Your task to perform on an android device: Do I have any events today? Image 0: 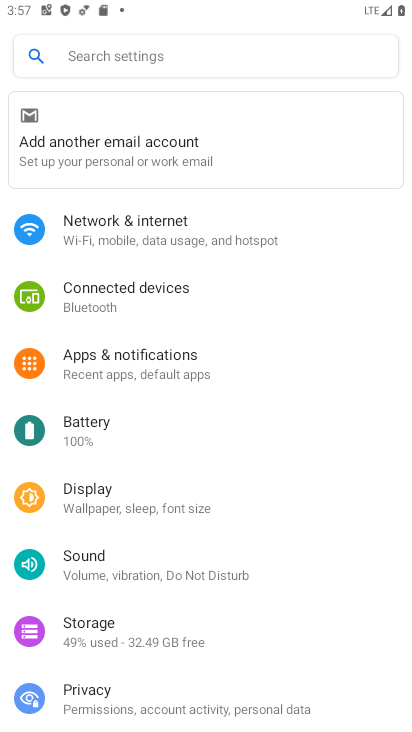
Step 0: press home button
Your task to perform on an android device: Do I have any events today? Image 1: 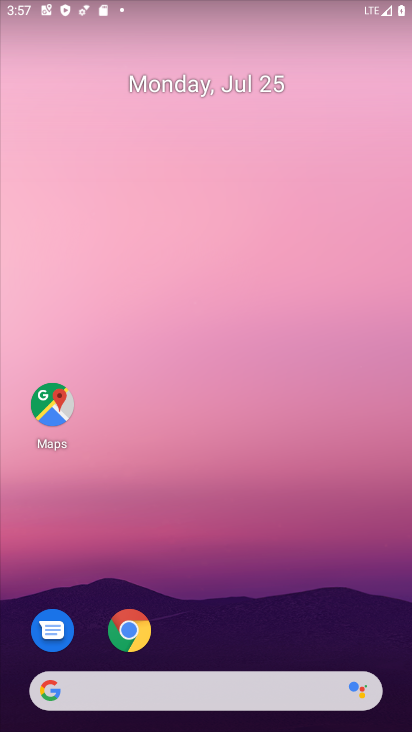
Step 1: drag from (208, 572) to (345, 15)
Your task to perform on an android device: Do I have any events today? Image 2: 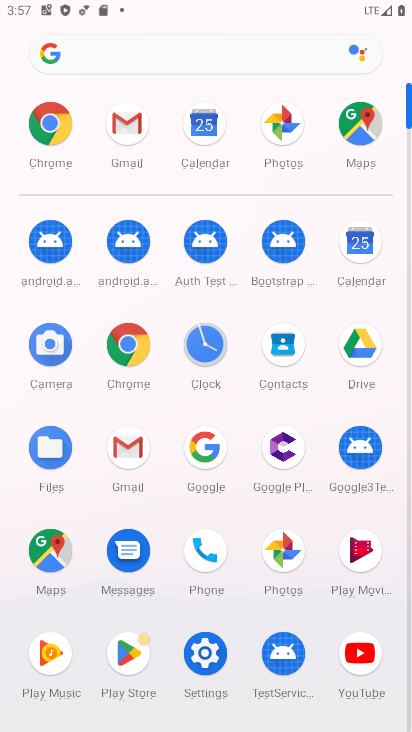
Step 2: click (357, 248)
Your task to perform on an android device: Do I have any events today? Image 3: 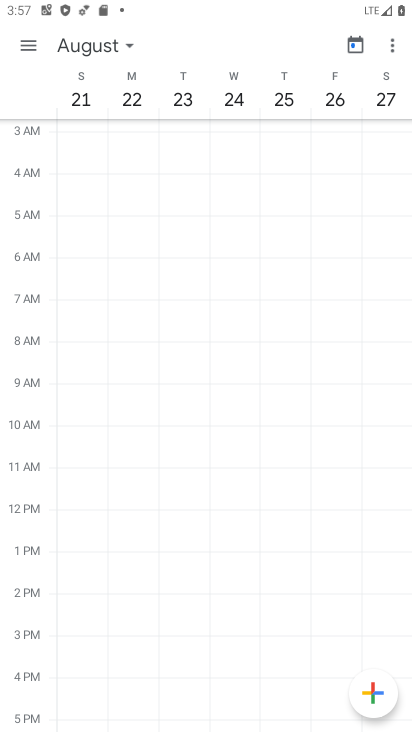
Step 3: click (88, 49)
Your task to perform on an android device: Do I have any events today? Image 4: 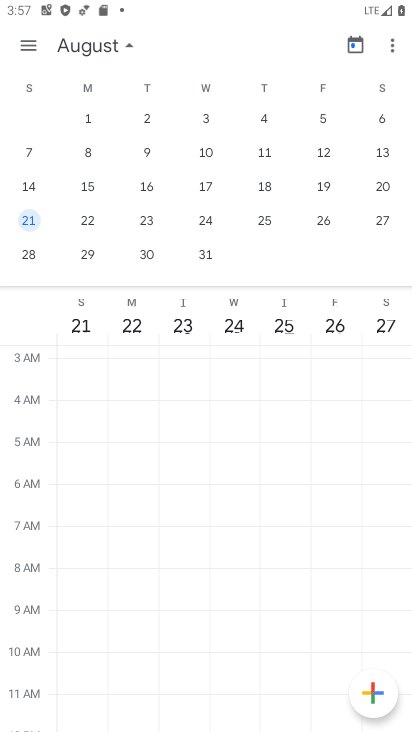
Step 4: drag from (107, 191) to (402, 245)
Your task to perform on an android device: Do I have any events today? Image 5: 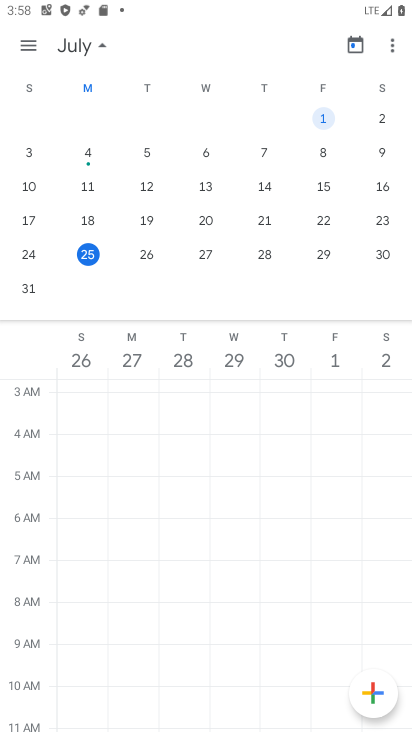
Step 5: click (93, 245)
Your task to perform on an android device: Do I have any events today? Image 6: 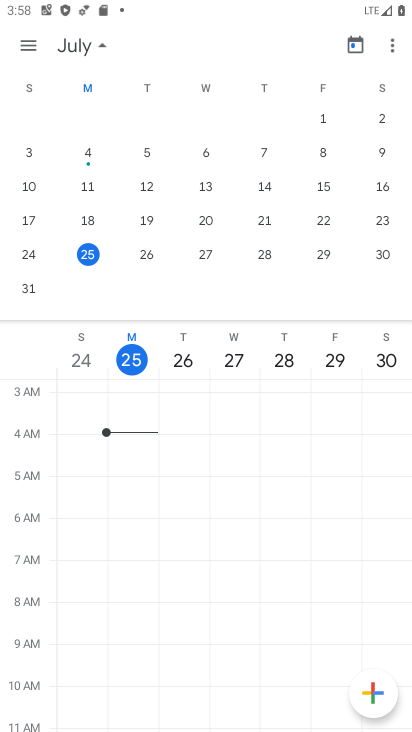
Step 6: click (33, 43)
Your task to perform on an android device: Do I have any events today? Image 7: 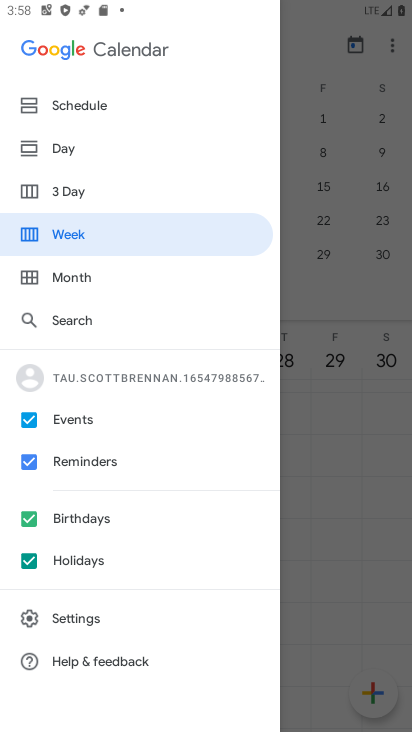
Step 7: click (55, 465)
Your task to perform on an android device: Do I have any events today? Image 8: 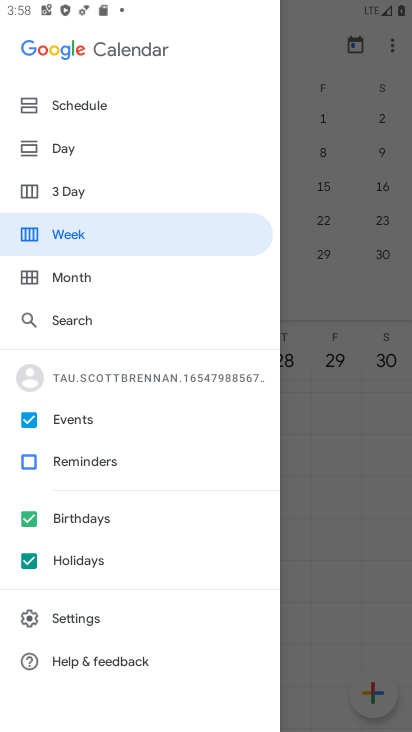
Step 8: click (62, 520)
Your task to perform on an android device: Do I have any events today? Image 9: 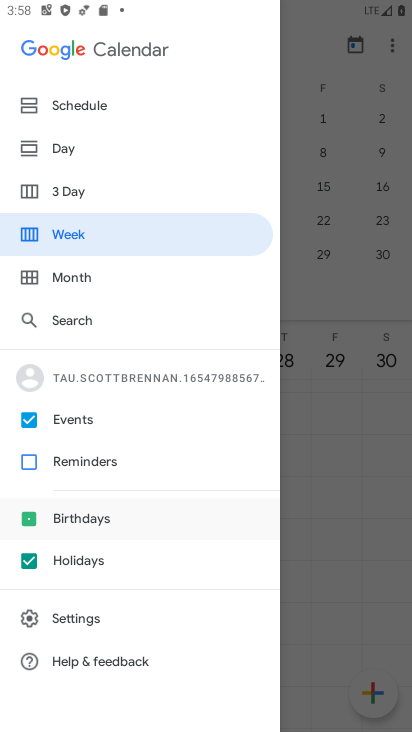
Step 9: click (62, 557)
Your task to perform on an android device: Do I have any events today? Image 10: 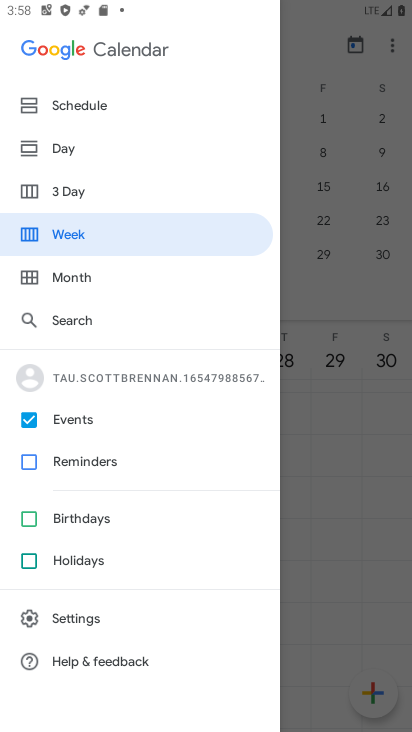
Step 10: click (69, 159)
Your task to perform on an android device: Do I have any events today? Image 11: 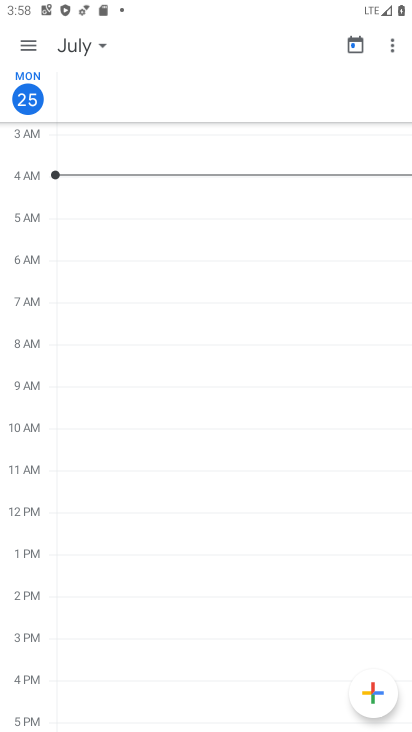
Step 11: task complete